Your task to perform on an android device: Search for sushi restaurants on Maps Image 0: 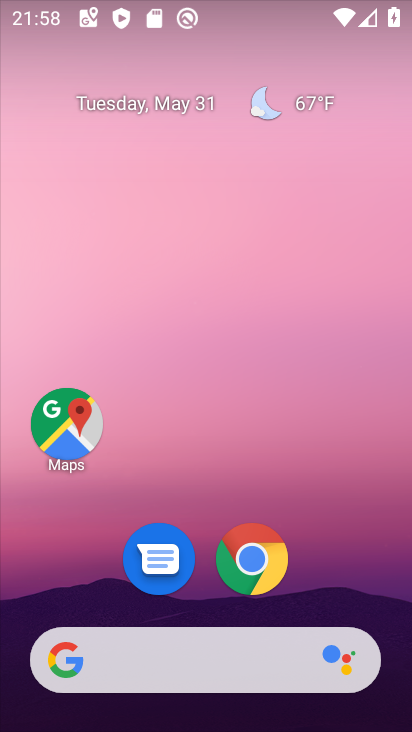
Step 0: click (72, 425)
Your task to perform on an android device: Search for sushi restaurants on Maps Image 1: 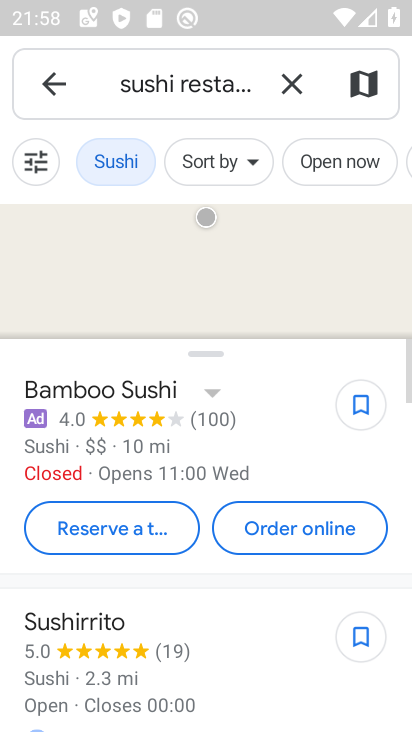
Step 1: click (289, 86)
Your task to perform on an android device: Search for sushi restaurants on Maps Image 2: 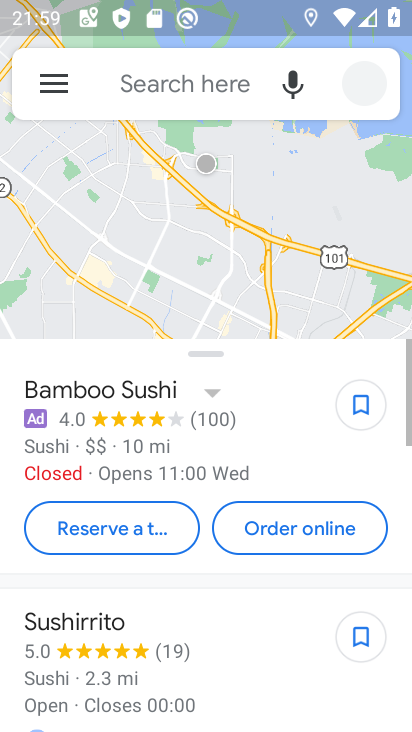
Step 2: click (170, 91)
Your task to perform on an android device: Search for sushi restaurants on Maps Image 3: 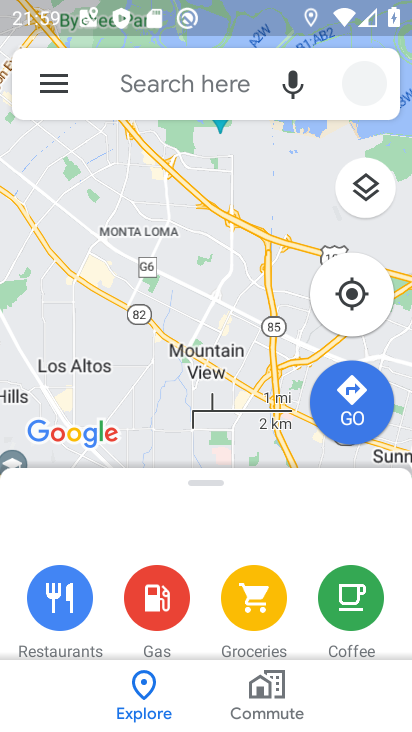
Step 3: click (170, 91)
Your task to perform on an android device: Search for sushi restaurants on Maps Image 4: 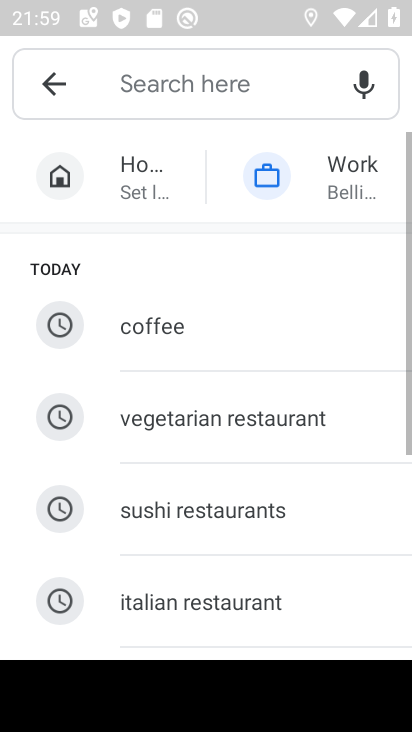
Step 4: click (226, 522)
Your task to perform on an android device: Search for sushi restaurants on Maps Image 5: 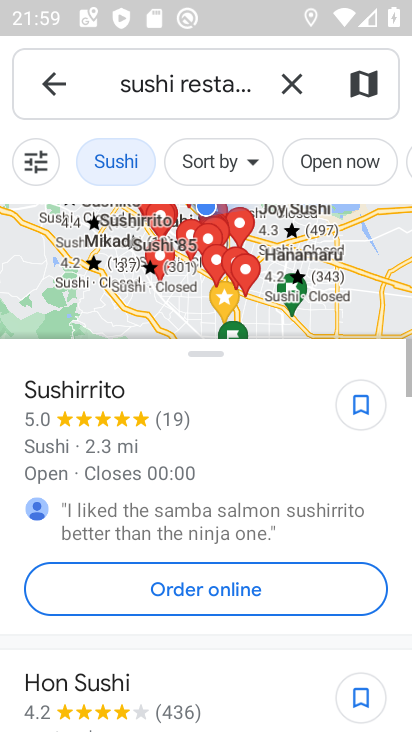
Step 5: task complete